Your task to perform on an android device: Do I have any events today? Image 0: 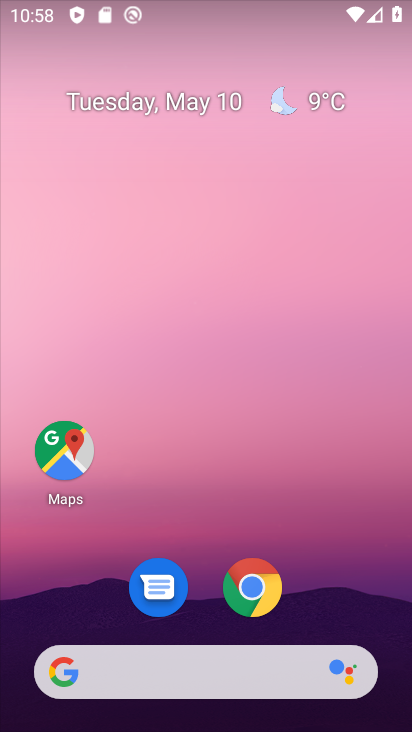
Step 0: drag from (347, 625) to (397, 5)
Your task to perform on an android device: Do I have any events today? Image 1: 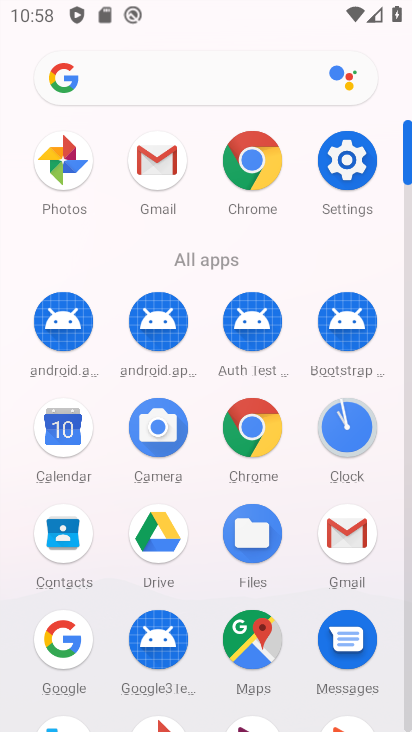
Step 1: click (61, 427)
Your task to perform on an android device: Do I have any events today? Image 2: 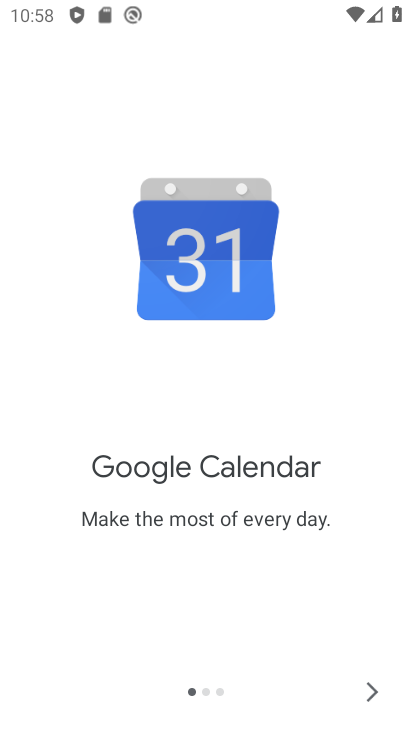
Step 2: click (369, 702)
Your task to perform on an android device: Do I have any events today? Image 3: 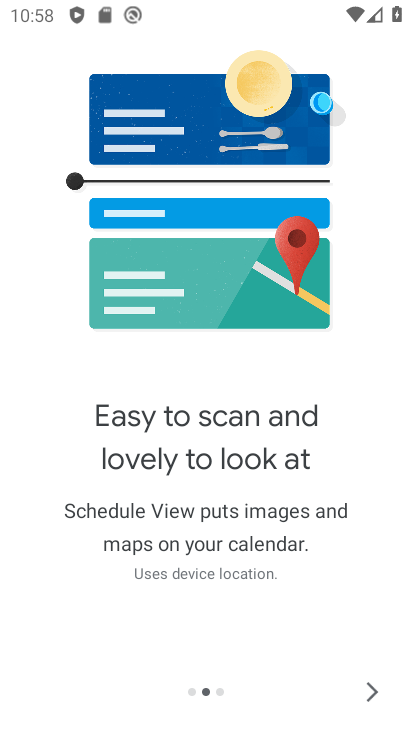
Step 3: click (369, 702)
Your task to perform on an android device: Do I have any events today? Image 4: 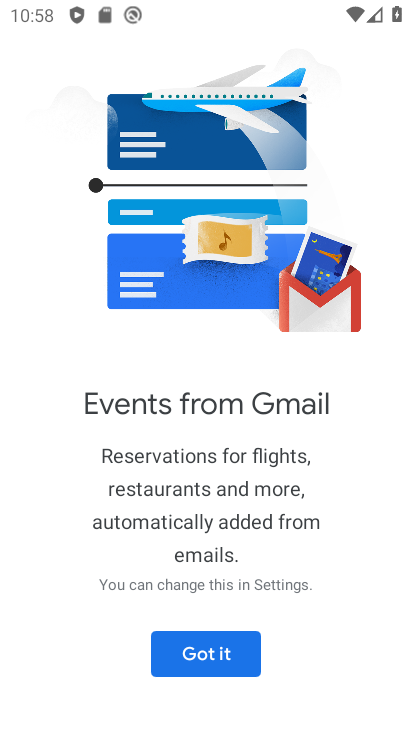
Step 4: click (239, 665)
Your task to perform on an android device: Do I have any events today? Image 5: 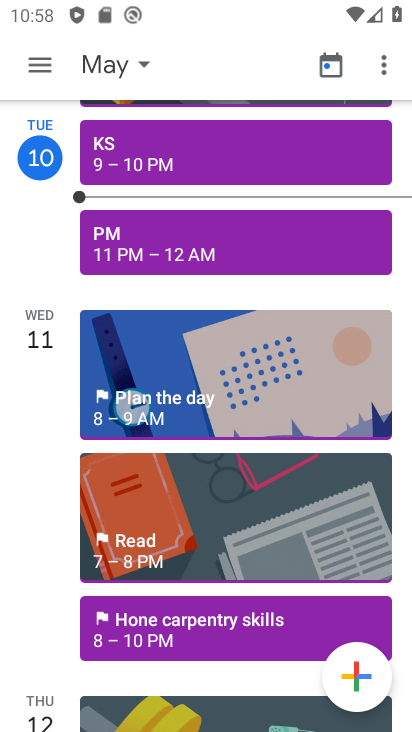
Step 5: click (181, 258)
Your task to perform on an android device: Do I have any events today? Image 6: 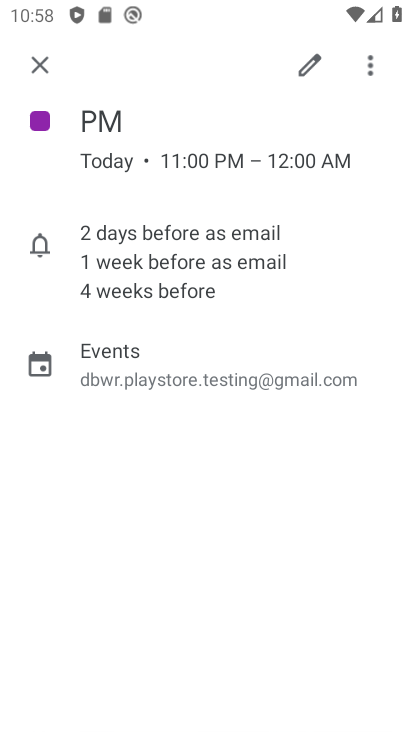
Step 6: task complete